Your task to perform on an android device: install app "Messenger Lite" Image 0: 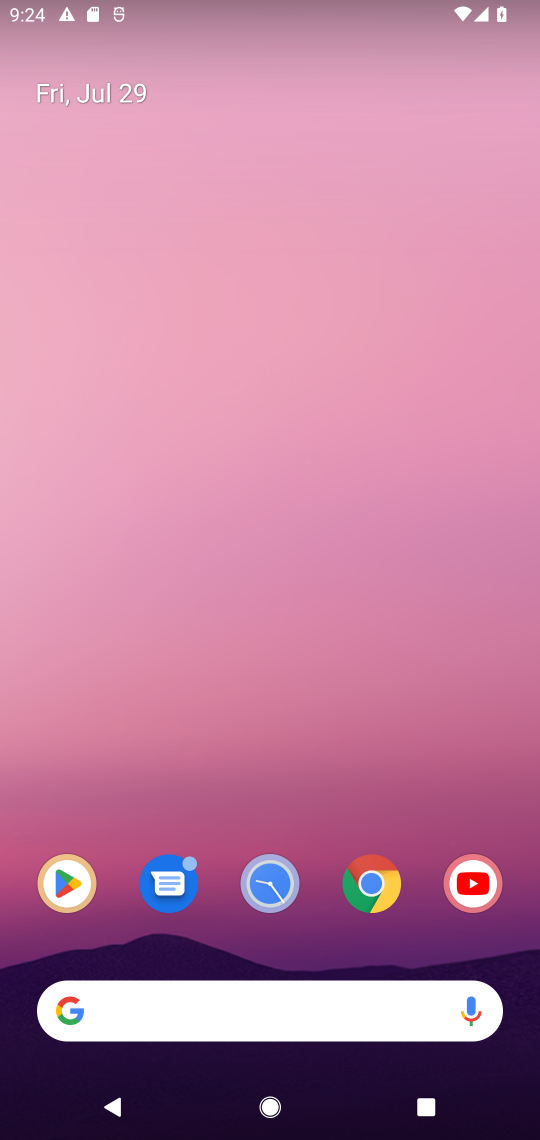
Step 0: click (79, 890)
Your task to perform on an android device: install app "Messenger Lite" Image 1: 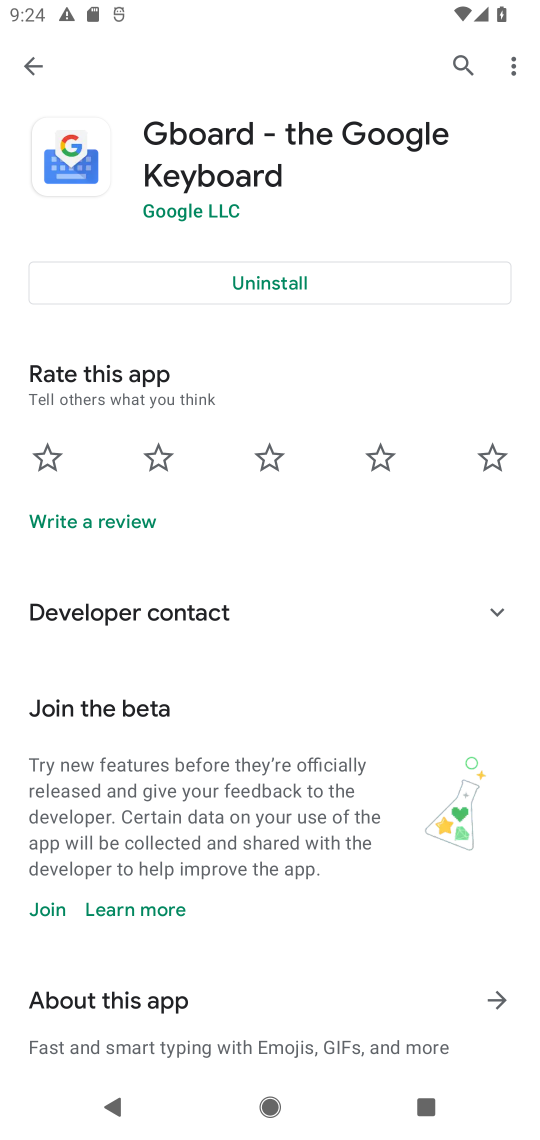
Step 1: click (27, 62)
Your task to perform on an android device: install app "Messenger Lite" Image 2: 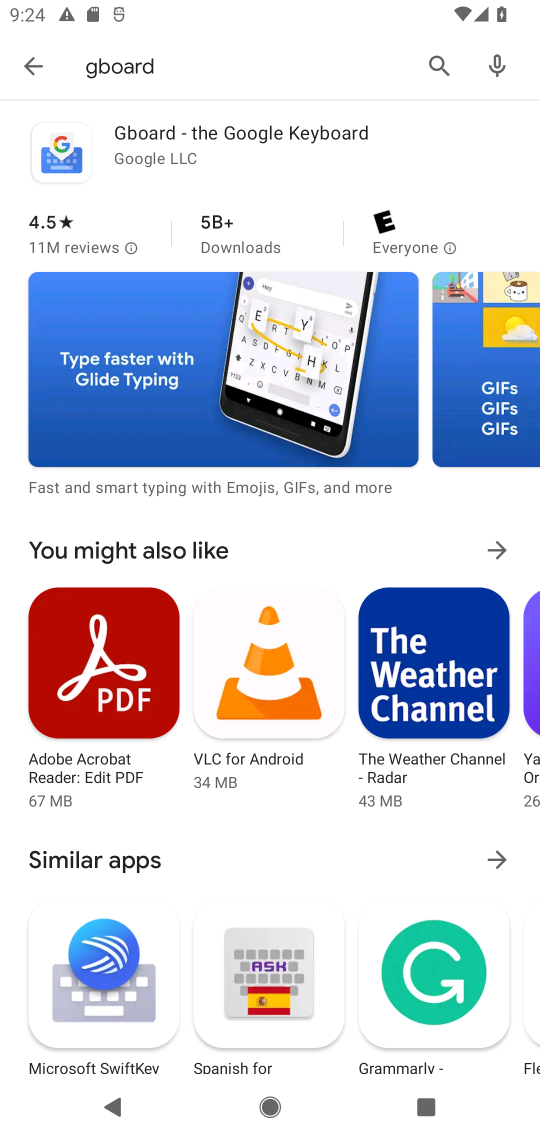
Step 2: click (176, 73)
Your task to perform on an android device: install app "Messenger Lite" Image 3: 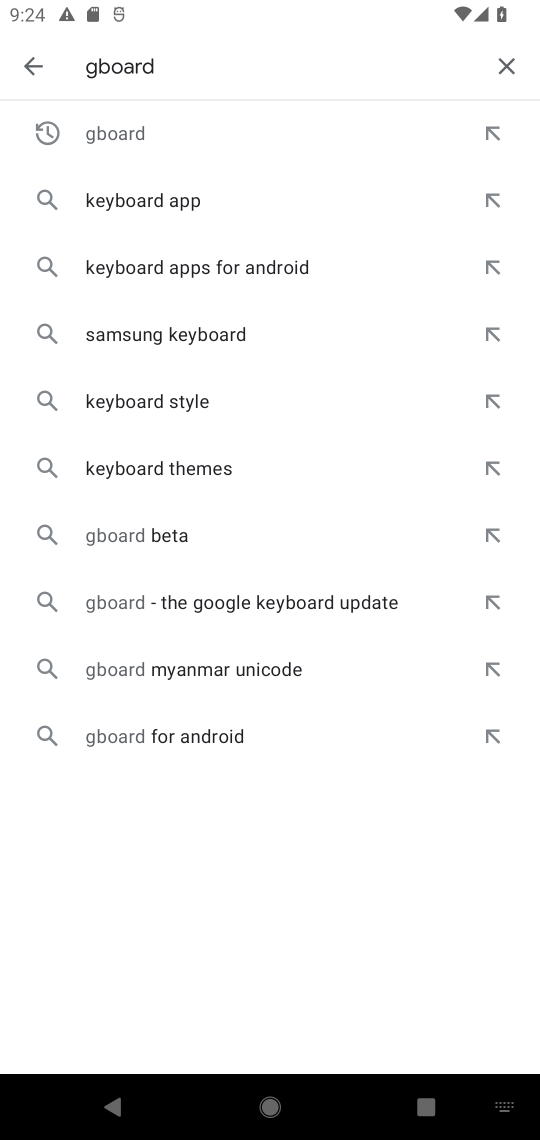
Step 3: click (500, 62)
Your task to perform on an android device: install app "Messenger Lite" Image 4: 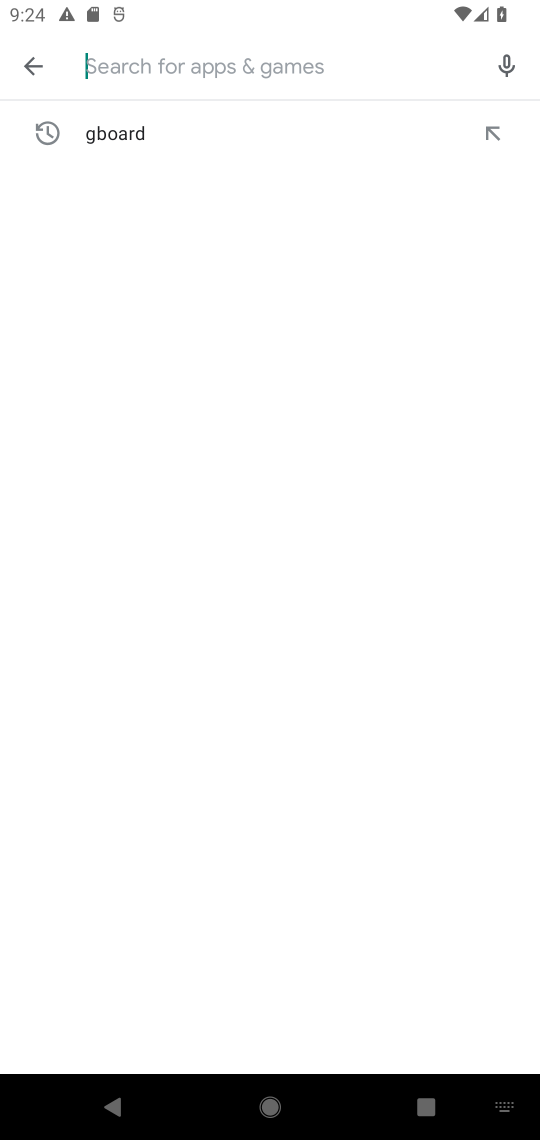
Step 4: type "Messenger Lite"
Your task to perform on an android device: install app "Messenger Lite" Image 5: 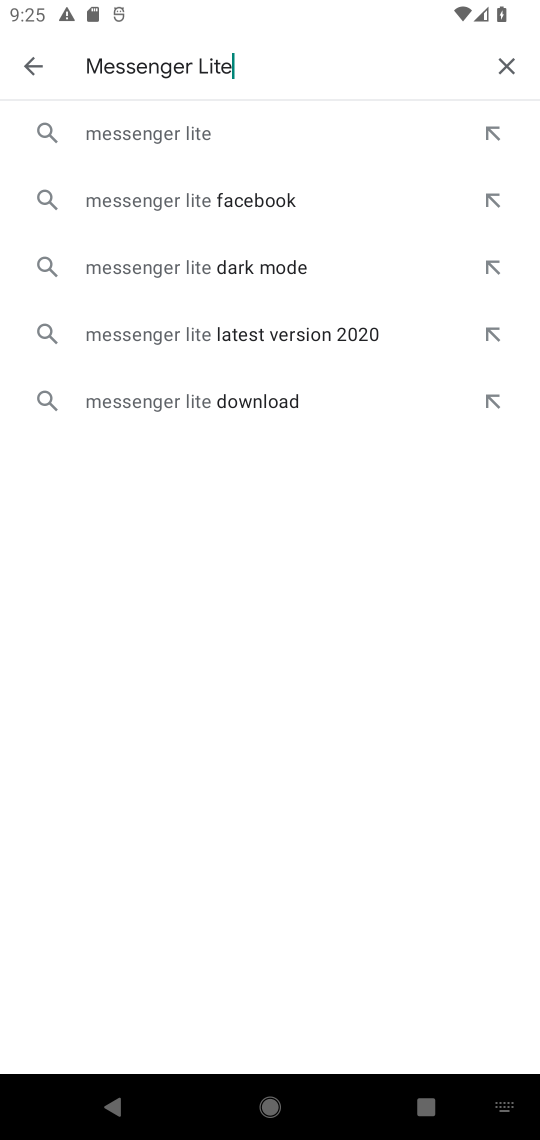
Step 5: click (238, 123)
Your task to perform on an android device: install app "Messenger Lite" Image 6: 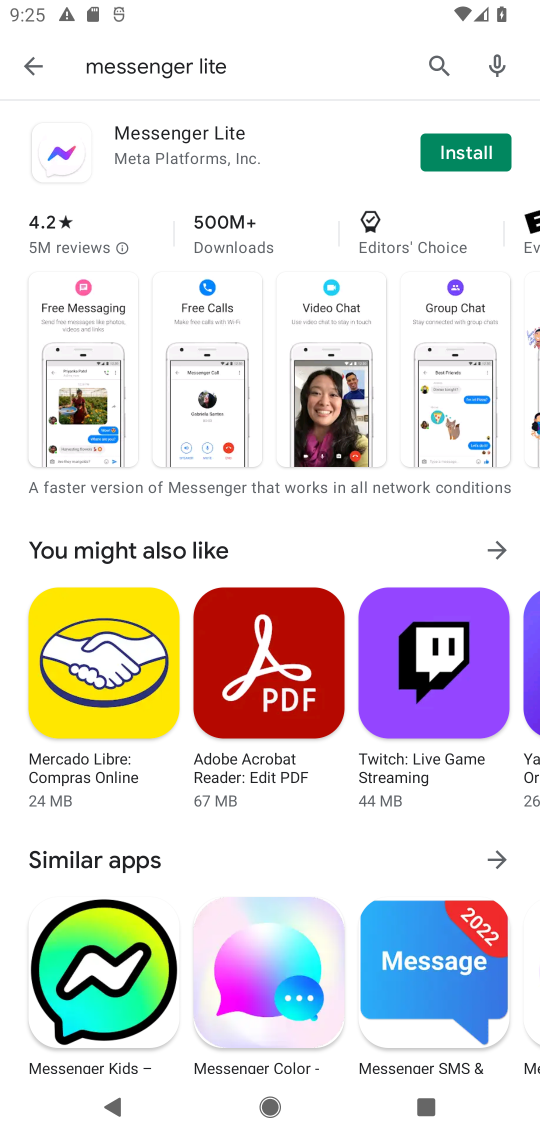
Step 6: click (459, 161)
Your task to perform on an android device: install app "Messenger Lite" Image 7: 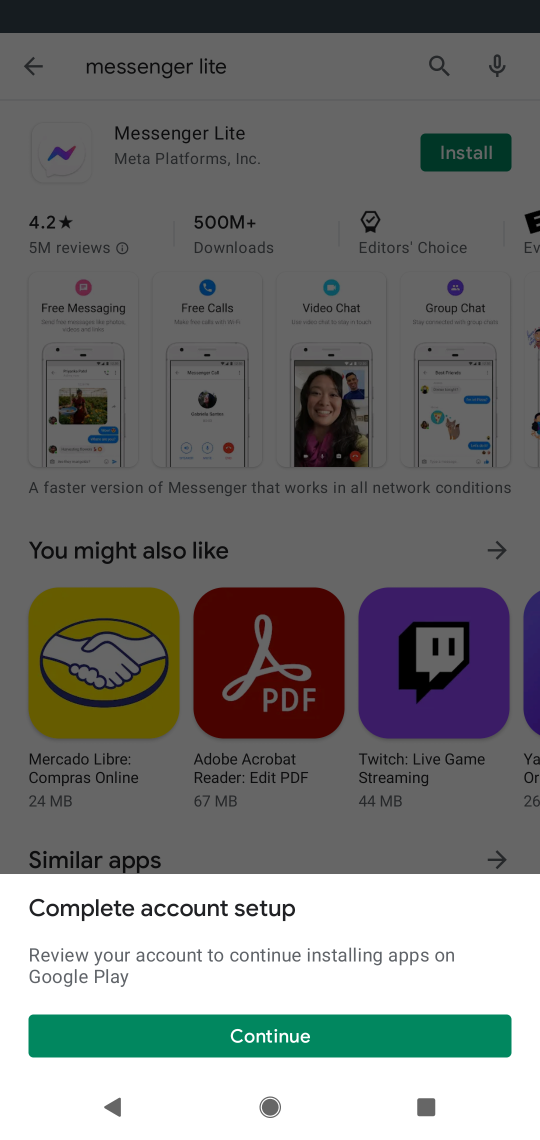
Step 7: click (304, 1030)
Your task to perform on an android device: install app "Messenger Lite" Image 8: 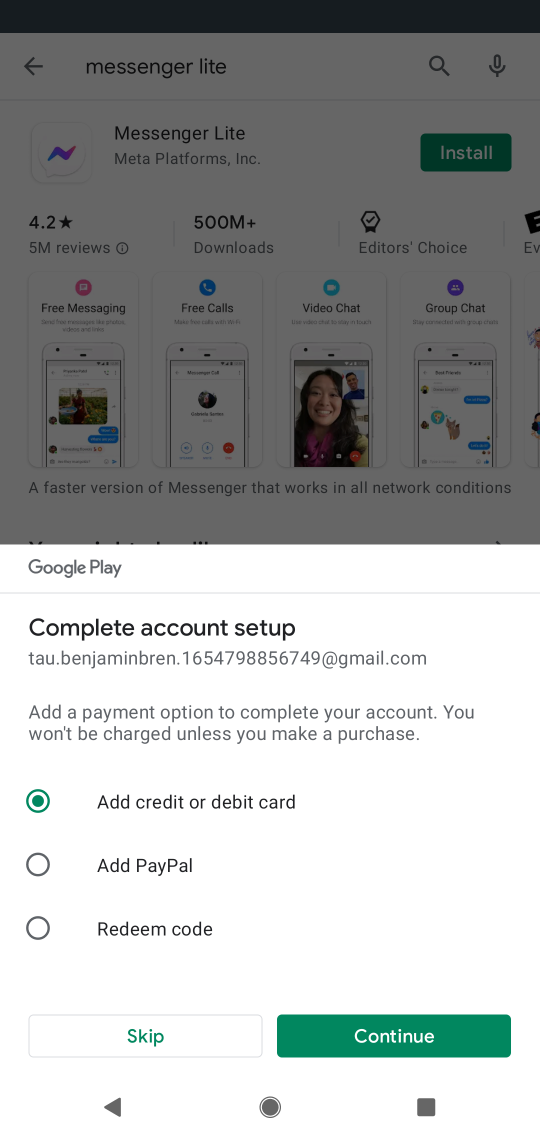
Step 8: click (101, 1037)
Your task to perform on an android device: install app "Messenger Lite" Image 9: 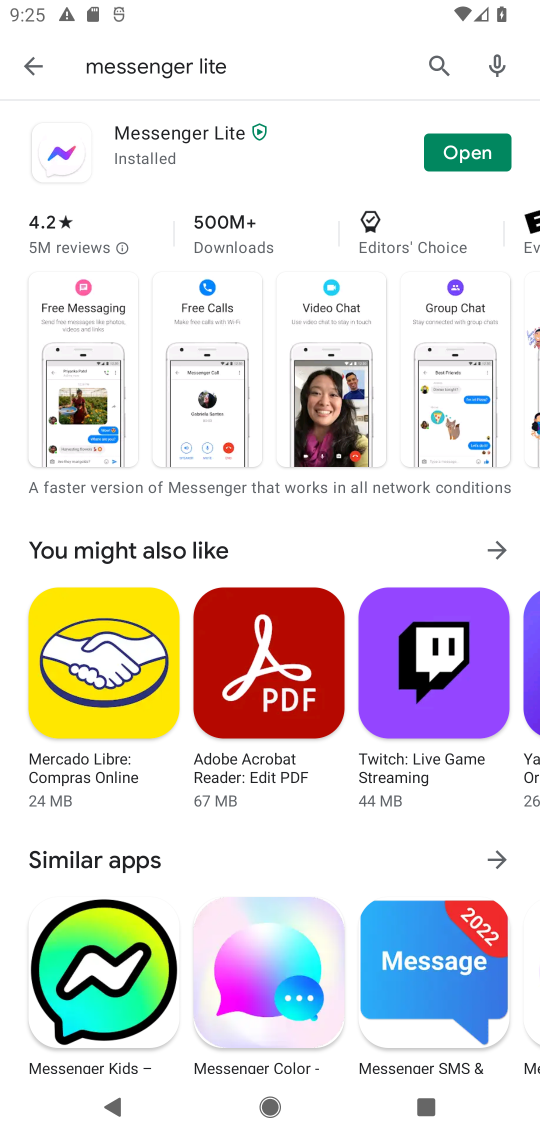
Step 9: task complete